Your task to perform on an android device: Open calendar and show me the second week of next month Image 0: 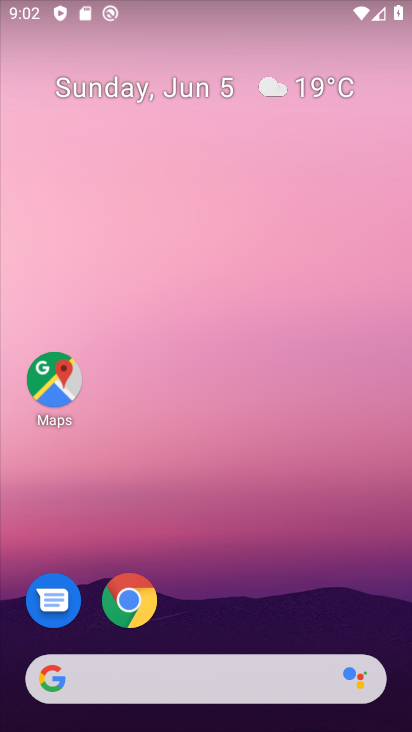
Step 0: task complete